Your task to perform on an android device: clear all cookies in the chrome app Image 0: 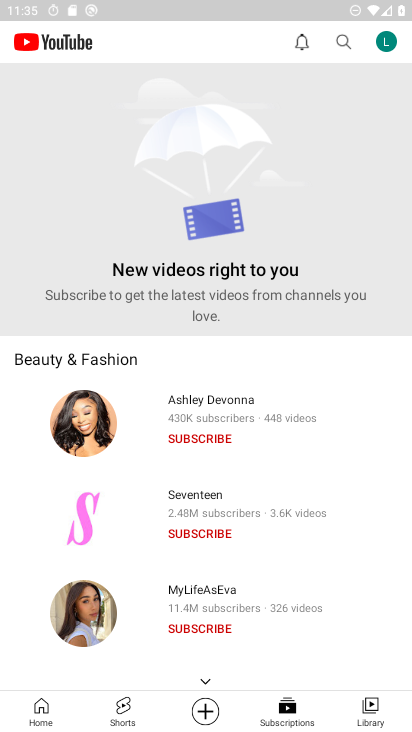
Step 0: press home button
Your task to perform on an android device: clear all cookies in the chrome app Image 1: 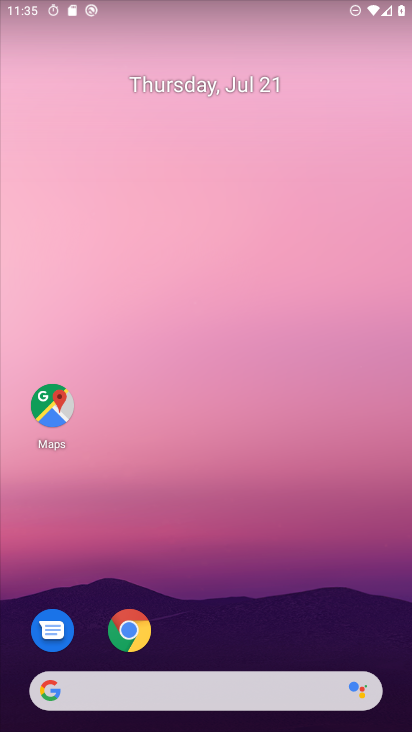
Step 1: click (124, 623)
Your task to perform on an android device: clear all cookies in the chrome app Image 2: 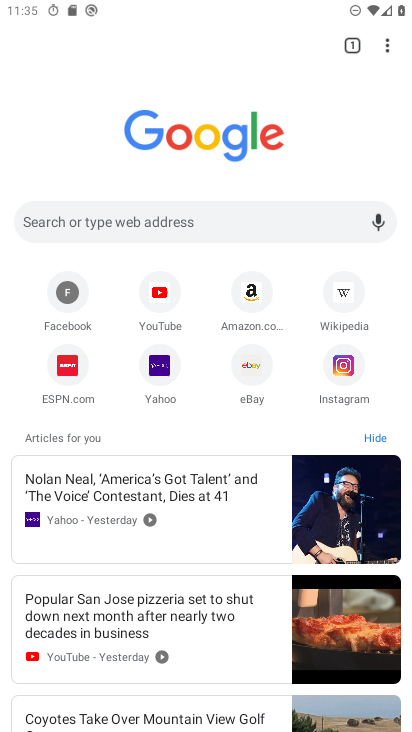
Step 2: drag from (386, 37) to (226, 438)
Your task to perform on an android device: clear all cookies in the chrome app Image 3: 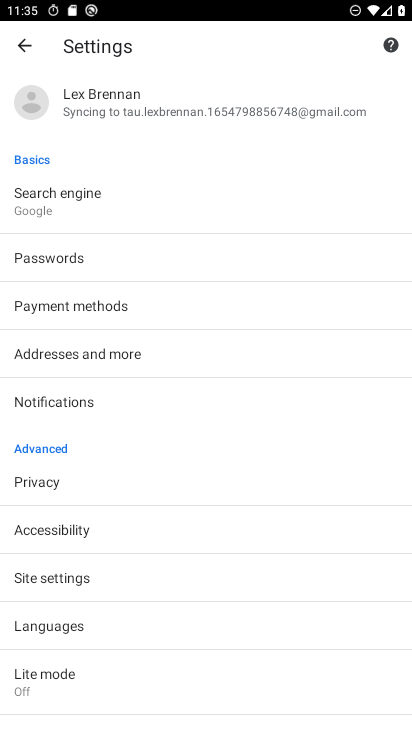
Step 3: click (55, 478)
Your task to perform on an android device: clear all cookies in the chrome app Image 4: 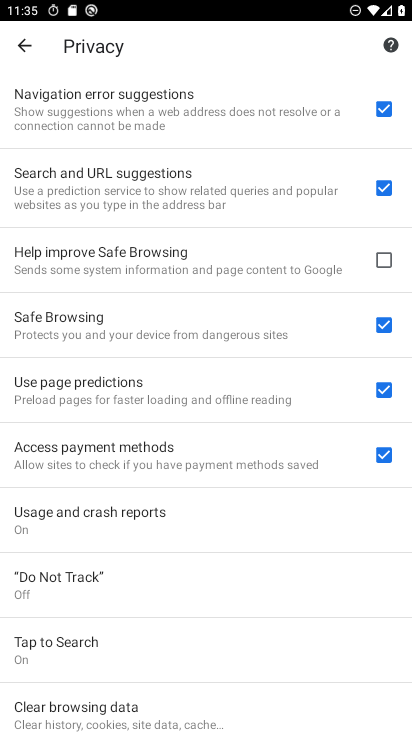
Step 4: click (132, 703)
Your task to perform on an android device: clear all cookies in the chrome app Image 5: 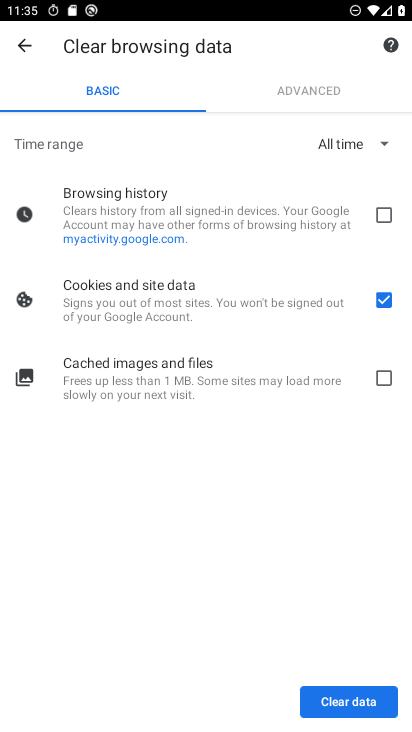
Step 5: click (338, 700)
Your task to perform on an android device: clear all cookies in the chrome app Image 6: 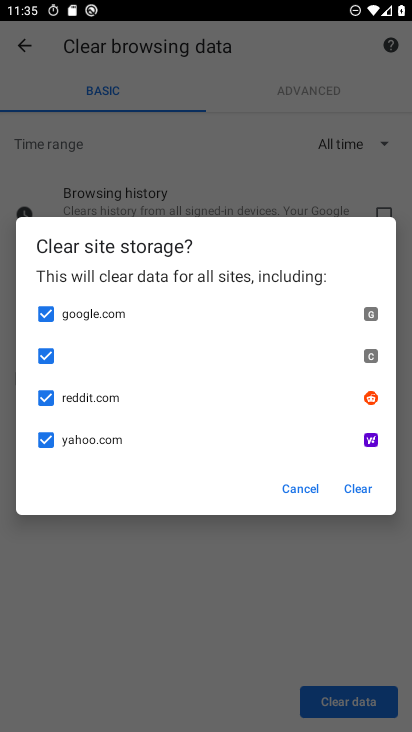
Step 6: click (371, 490)
Your task to perform on an android device: clear all cookies in the chrome app Image 7: 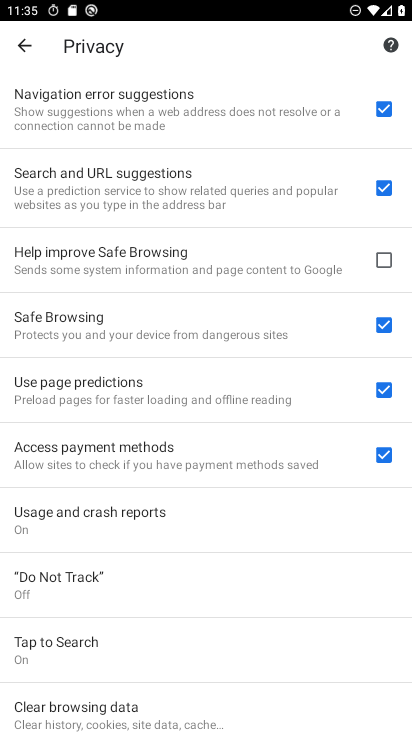
Step 7: task complete